Your task to perform on an android device: check android version Image 0: 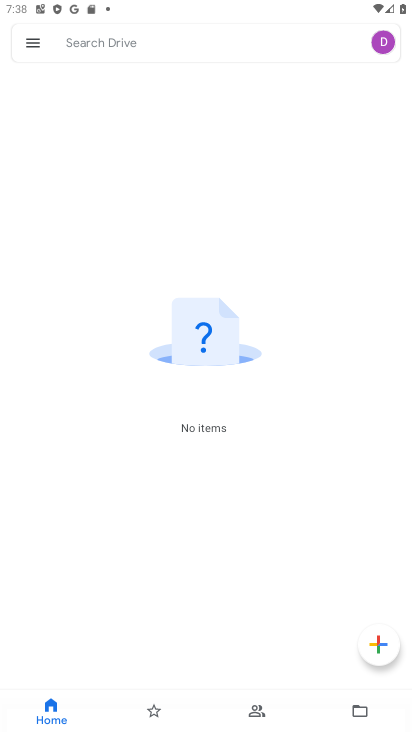
Step 0: press home button
Your task to perform on an android device: check android version Image 1: 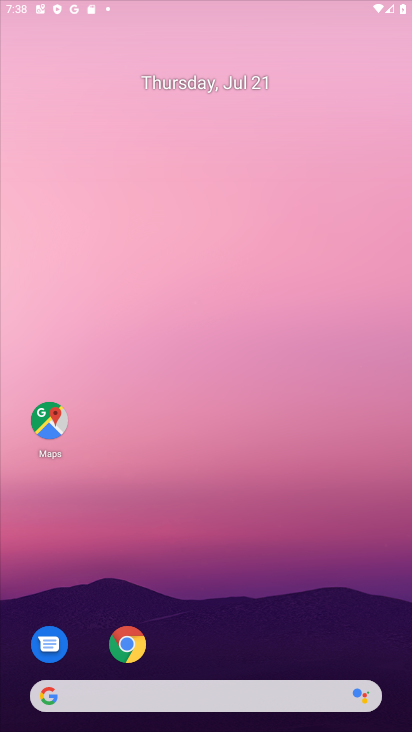
Step 1: drag from (194, 596) to (261, 218)
Your task to perform on an android device: check android version Image 2: 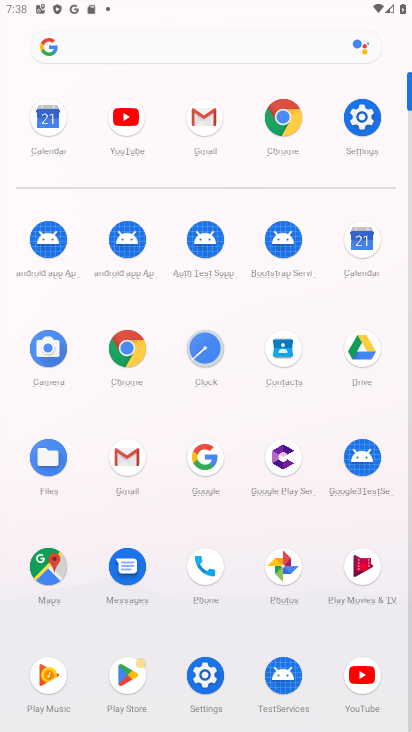
Step 2: click (207, 680)
Your task to perform on an android device: check android version Image 3: 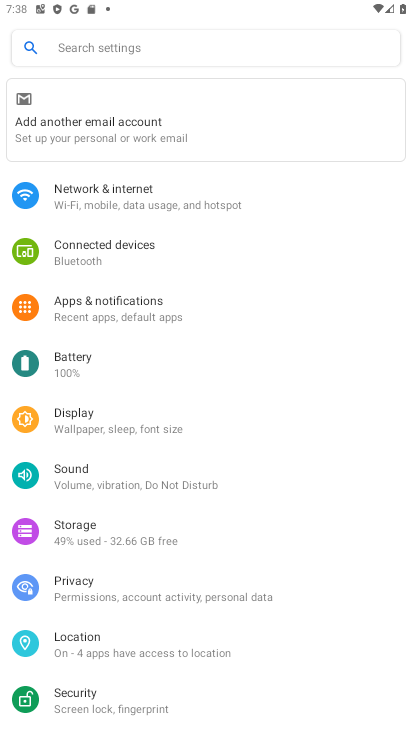
Step 3: drag from (148, 670) to (222, 308)
Your task to perform on an android device: check android version Image 4: 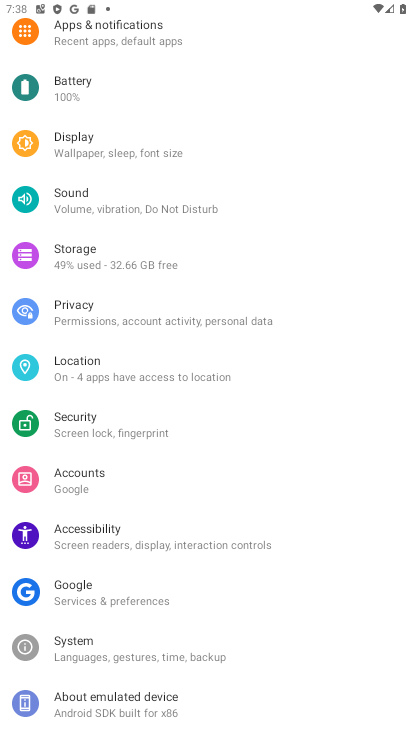
Step 4: drag from (189, 654) to (233, 385)
Your task to perform on an android device: check android version Image 5: 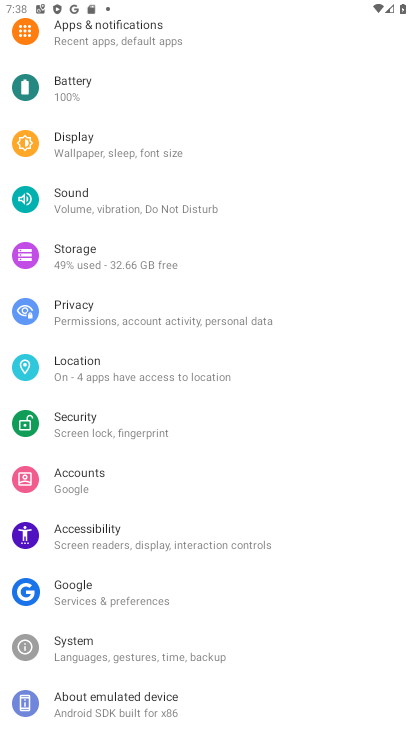
Step 5: drag from (136, 665) to (183, 357)
Your task to perform on an android device: check android version Image 6: 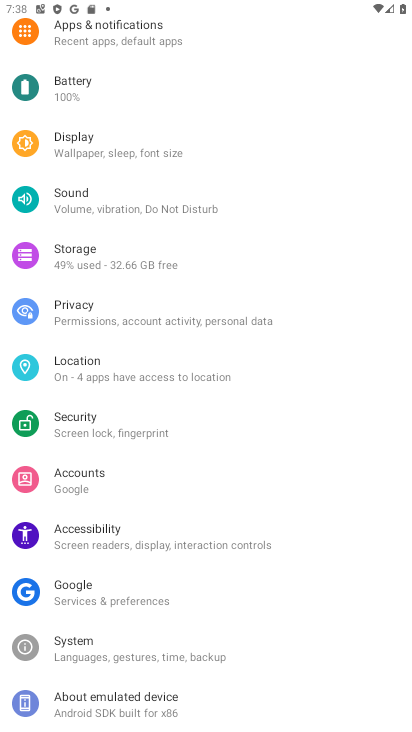
Step 6: click (102, 701)
Your task to perform on an android device: check android version Image 7: 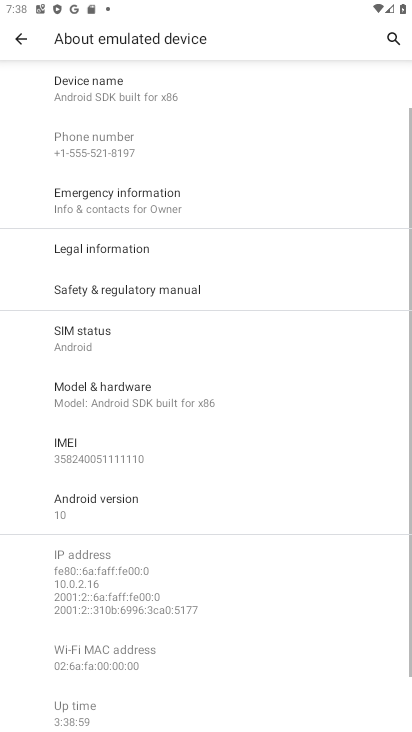
Step 7: task complete